Your task to perform on an android device: check out phone information Image 0: 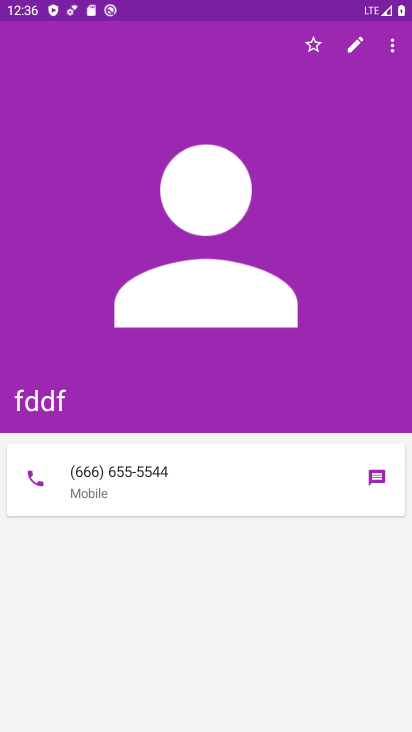
Step 0: press home button
Your task to perform on an android device: check out phone information Image 1: 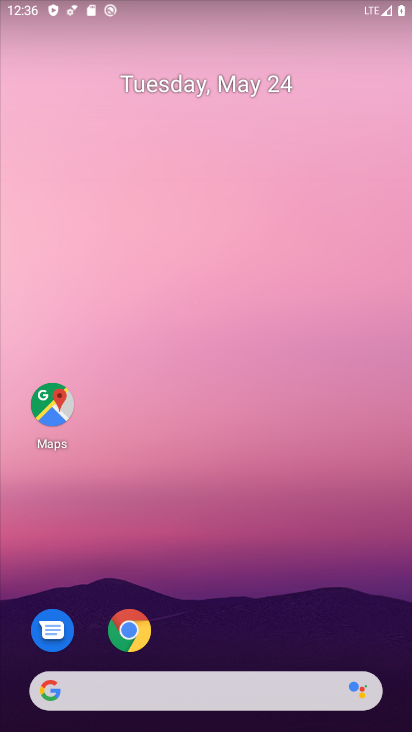
Step 1: drag from (282, 631) to (328, 189)
Your task to perform on an android device: check out phone information Image 2: 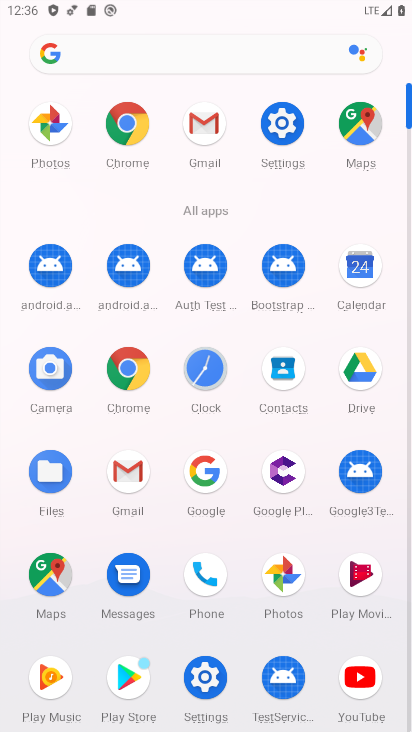
Step 2: click (186, 678)
Your task to perform on an android device: check out phone information Image 3: 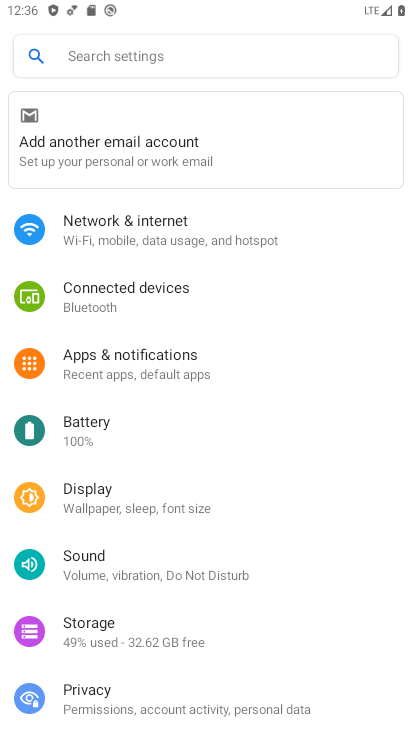
Step 3: drag from (248, 648) to (252, 286)
Your task to perform on an android device: check out phone information Image 4: 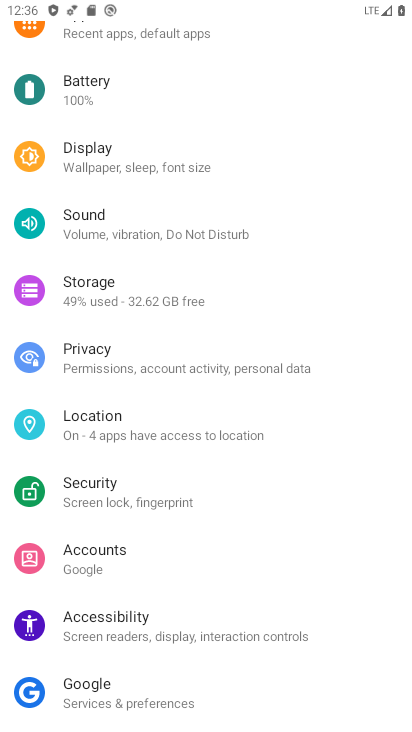
Step 4: drag from (291, 690) to (311, 278)
Your task to perform on an android device: check out phone information Image 5: 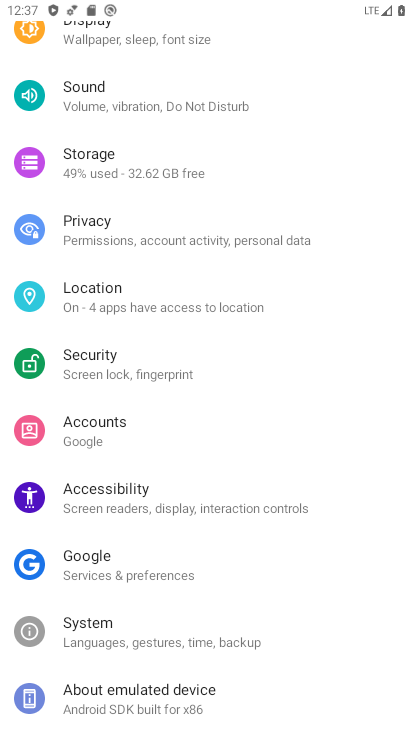
Step 5: drag from (226, 644) to (233, 350)
Your task to perform on an android device: check out phone information Image 6: 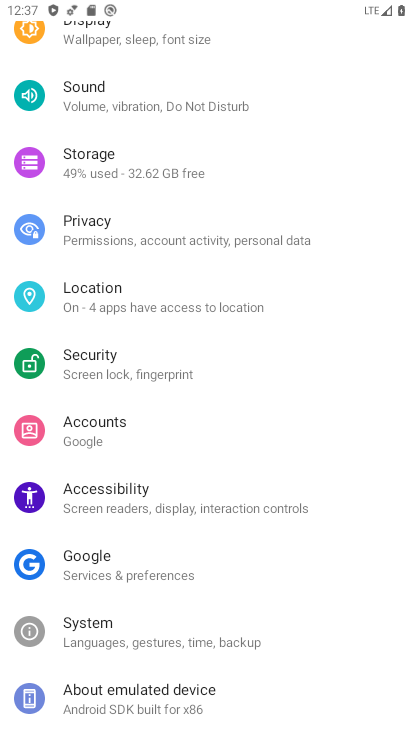
Step 6: click (205, 697)
Your task to perform on an android device: check out phone information Image 7: 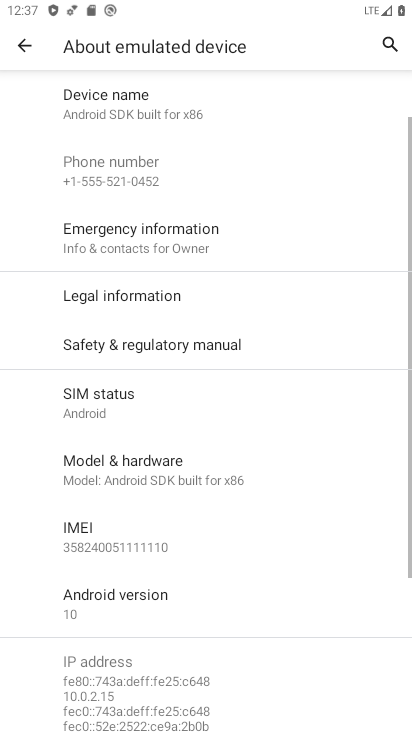
Step 7: task complete